Your task to perform on an android device: turn off wifi Image 0: 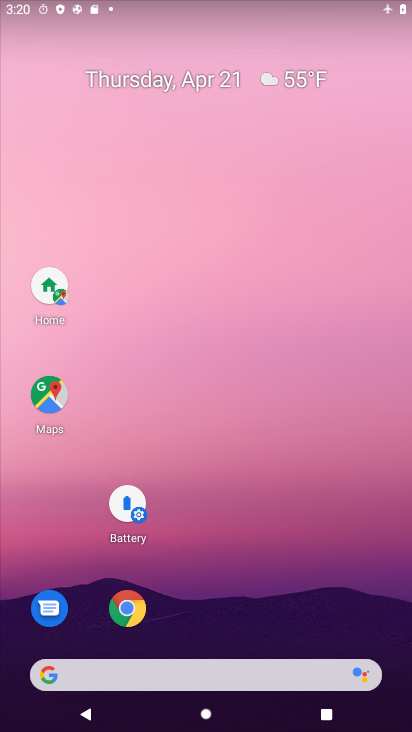
Step 0: drag from (298, 242) to (324, 87)
Your task to perform on an android device: turn off wifi Image 1: 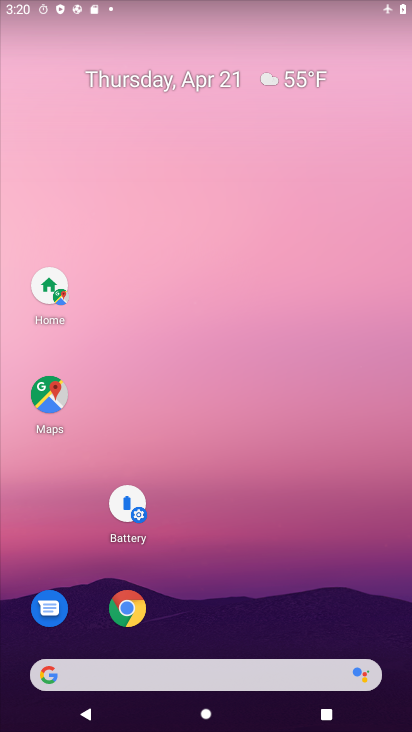
Step 1: drag from (412, 429) to (408, 240)
Your task to perform on an android device: turn off wifi Image 2: 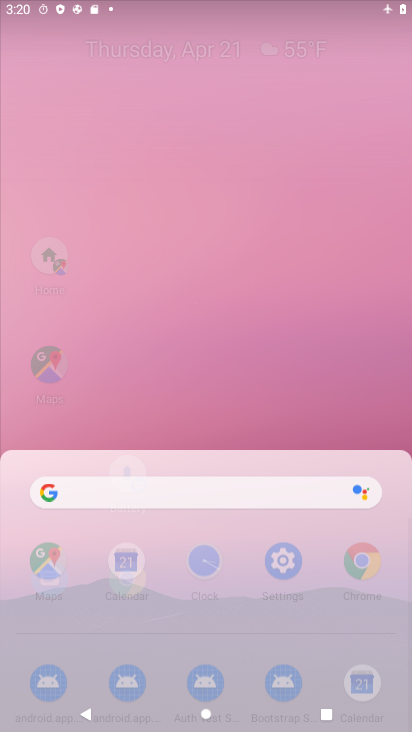
Step 2: drag from (347, 491) to (372, 160)
Your task to perform on an android device: turn off wifi Image 3: 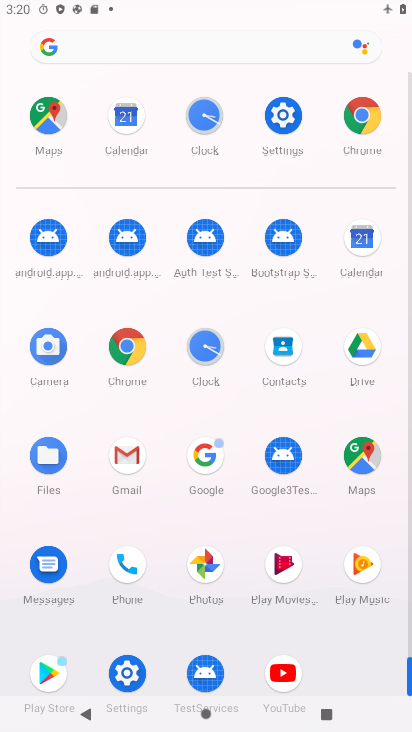
Step 3: click (298, 121)
Your task to perform on an android device: turn off wifi Image 4: 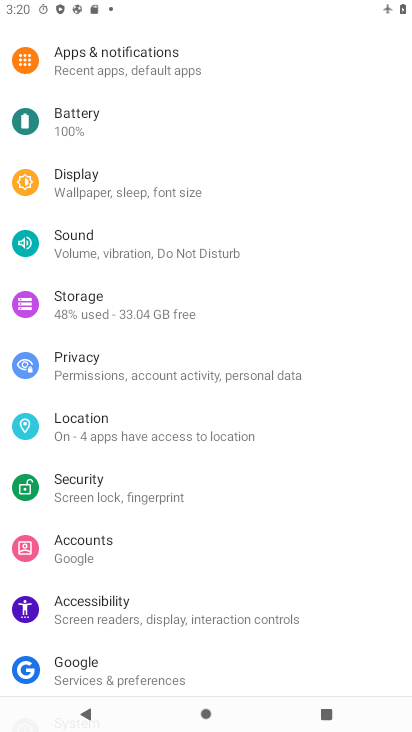
Step 4: drag from (257, 301) to (221, 527)
Your task to perform on an android device: turn off wifi Image 5: 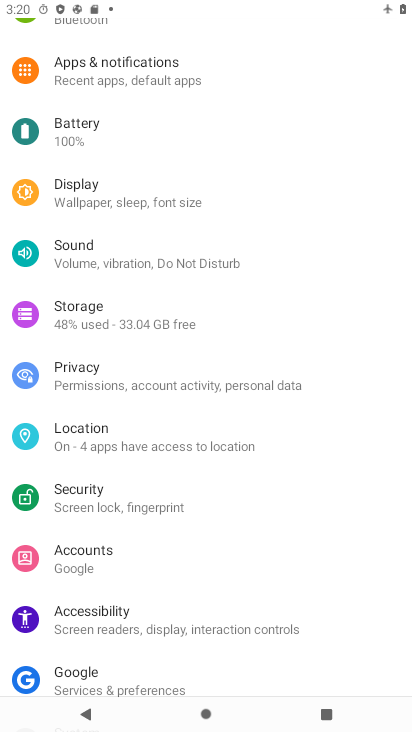
Step 5: drag from (240, 286) to (202, 538)
Your task to perform on an android device: turn off wifi Image 6: 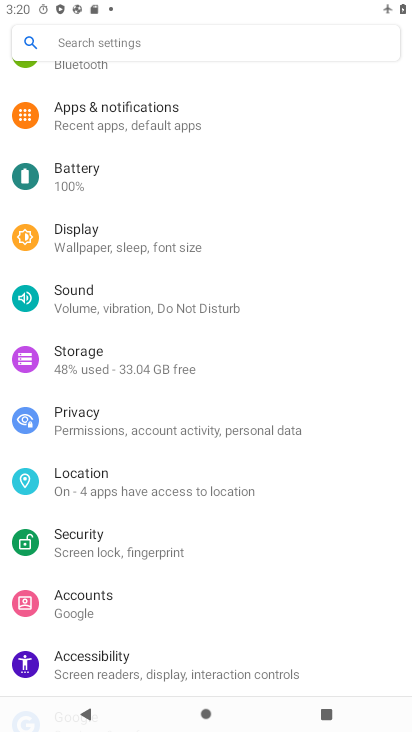
Step 6: drag from (270, 128) to (204, 520)
Your task to perform on an android device: turn off wifi Image 7: 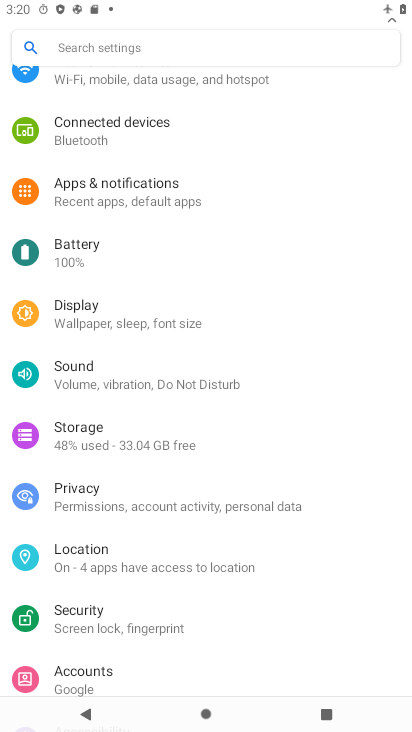
Step 7: drag from (242, 188) to (173, 550)
Your task to perform on an android device: turn off wifi Image 8: 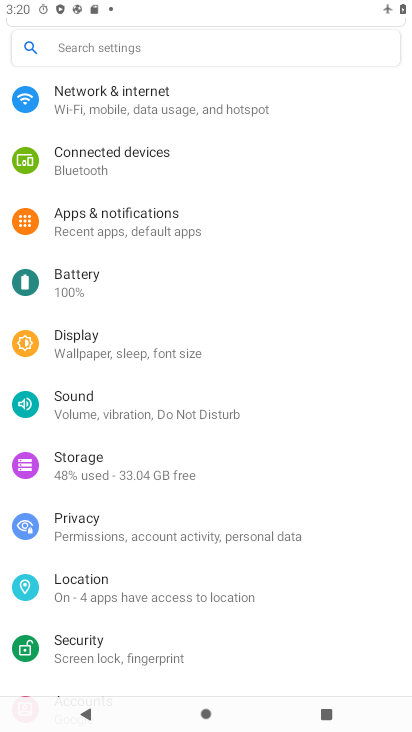
Step 8: drag from (230, 172) to (84, 546)
Your task to perform on an android device: turn off wifi Image 9: 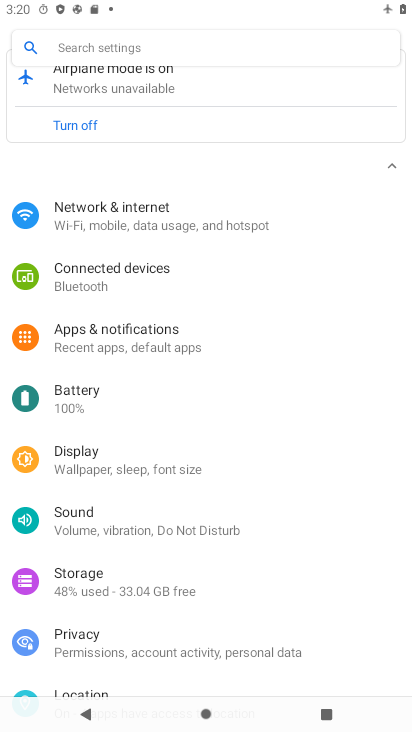
Step 9: click (135, 225)
Your task to perform on an android device: turn off wifi Image 10: 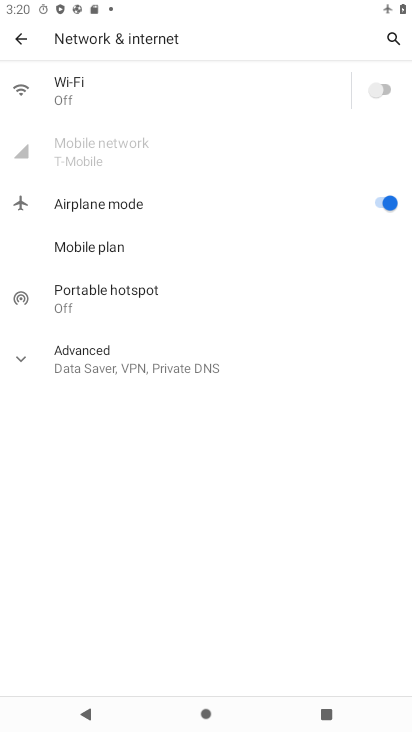
Step 10: click (95, 95)
Your task to perform on an android device: turn off wifi Image 11: 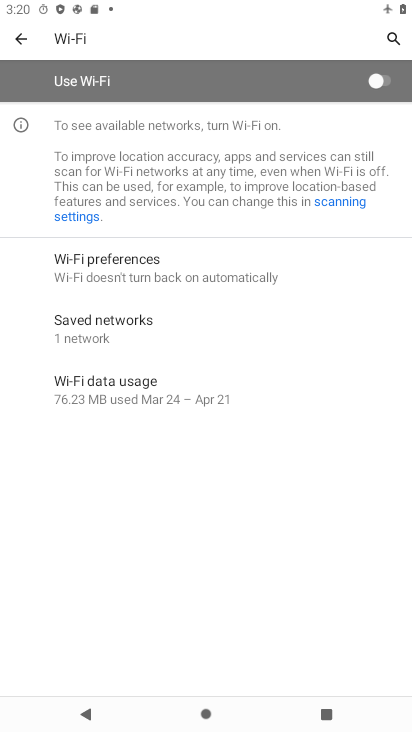
Step 11: task complete